Your task to perform on an android device: open app "Gmail" (install if not already installed), go to login, and select forgot password Image 0: 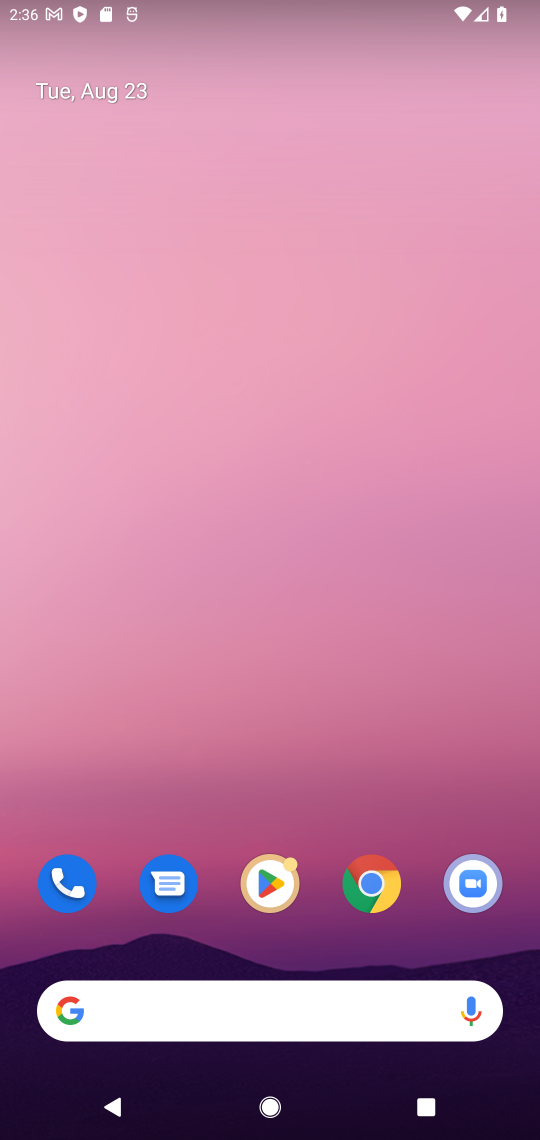
Step 0: click (195, 615)
Your task to perform on an android device: open app "Gmail" (install if not already installed), go to login, and select forgot password Image 1: 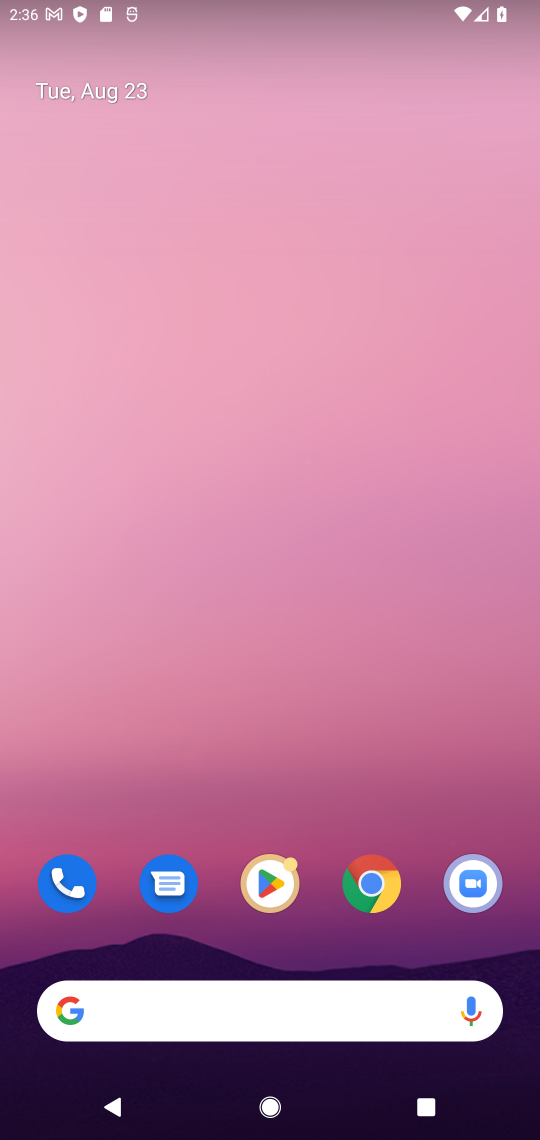
Step 1: drag from (324, 897) to (324, 508)
Your task to perform on an android device: open app "Gmail" (install if not already installed), go to login, and select forgot password Image 2: 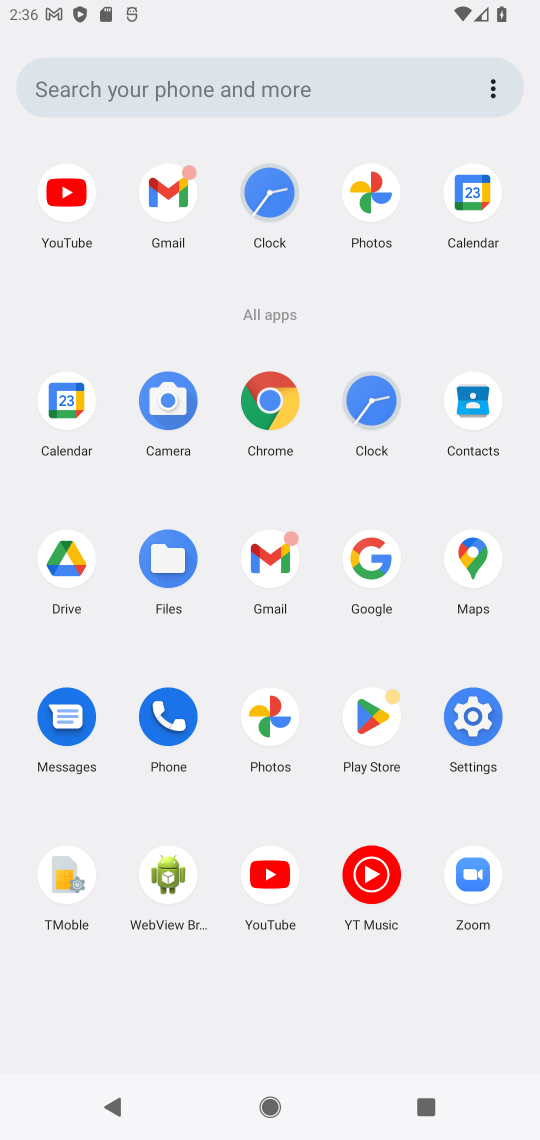
Step 2: click (271, 565)
Your task to perform on an android device: open app "Gmail" (install if not already installed), go to login, and select forgot password Image 3: 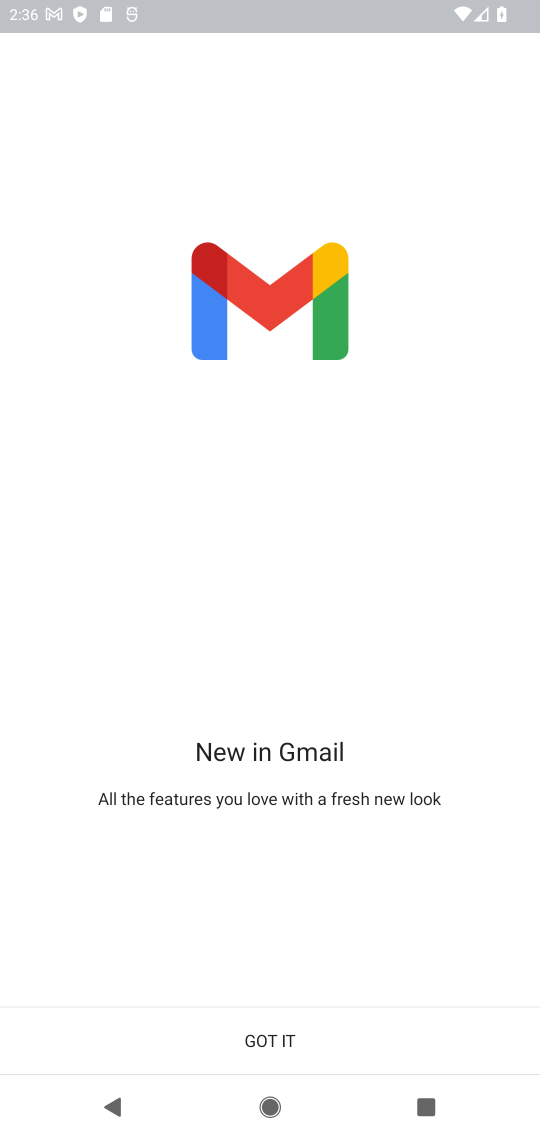
Step 3: click (287, 1035)
Your task to perform on an android device: open app "Gmail" (install if not already installed), go to login, and select forgot password Image 4: 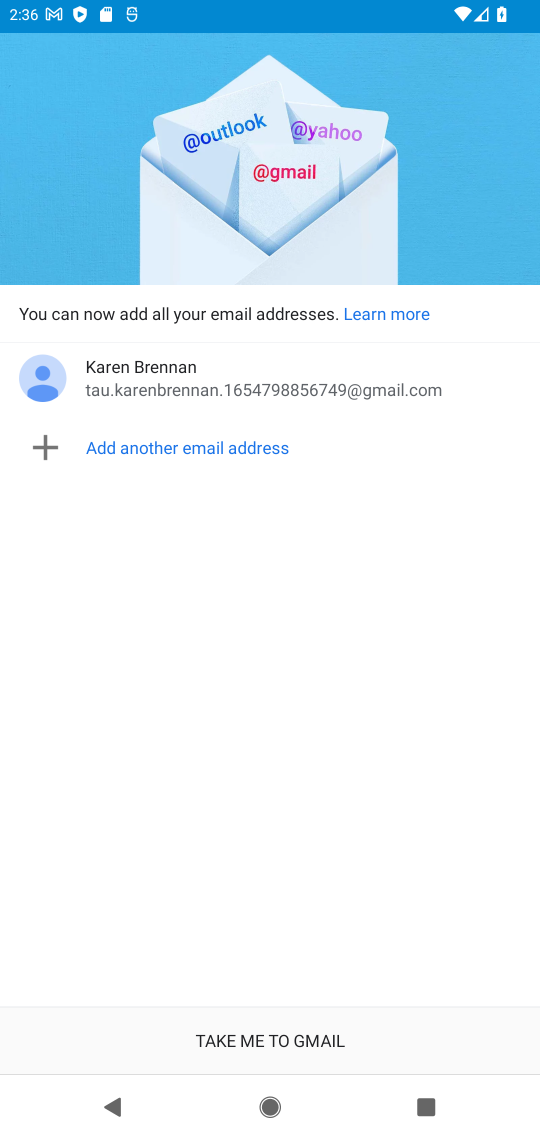
Step 4: click (352, 381)
Your task to perform on an android device: open app "Gmail" (install if not already installed), go to login, and select forgot password Image 5: 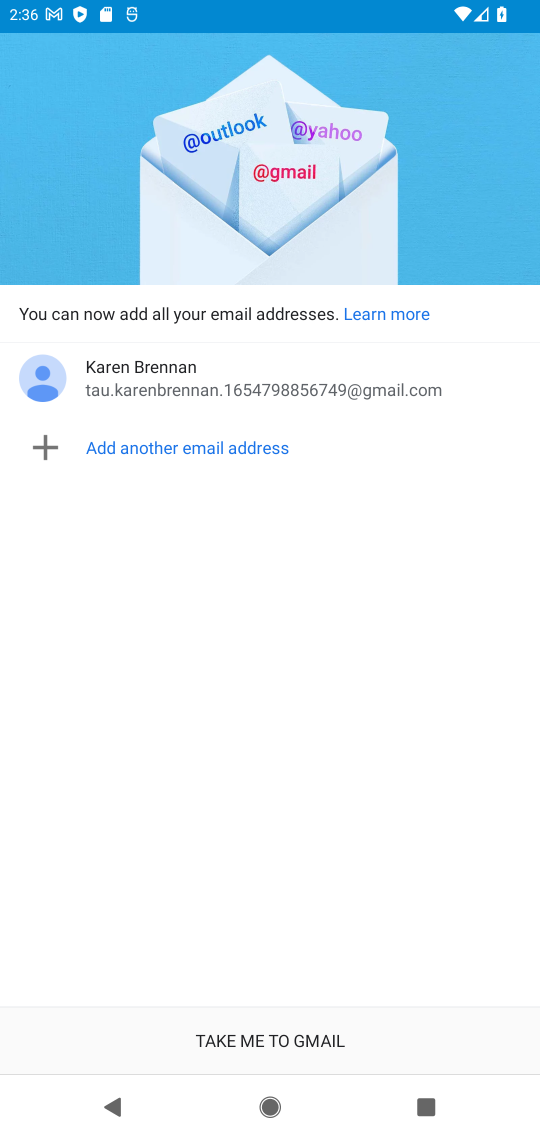
Step 5: click (179, 377)
Your task to perform on an android device: open app "Gmail" (install if not already installed), go to login, and select forgot password Image 6: 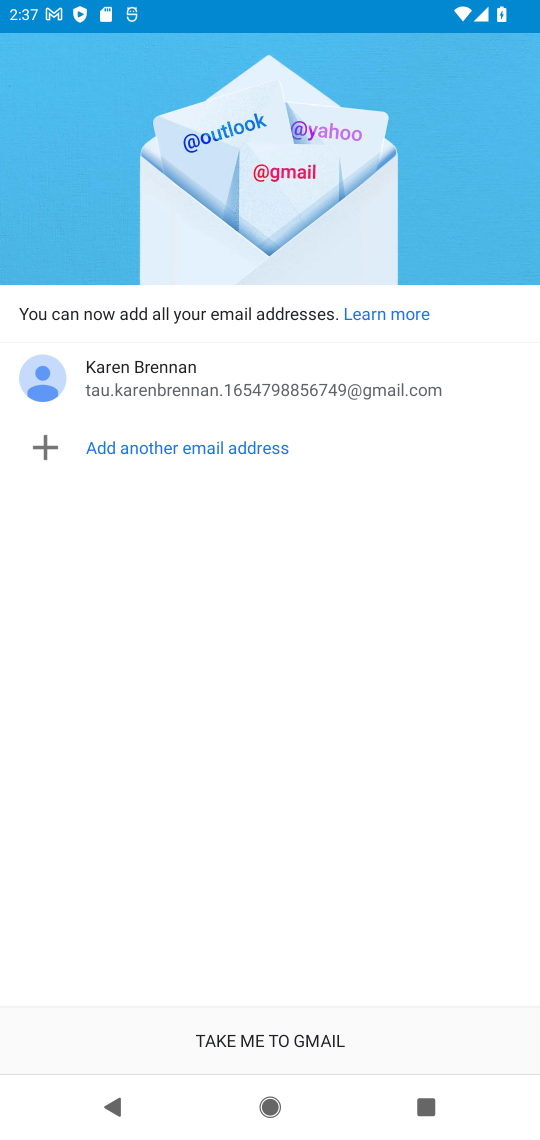
Step 6: task complete